Your task to perform on an android device: Go to Amazon Image 0: 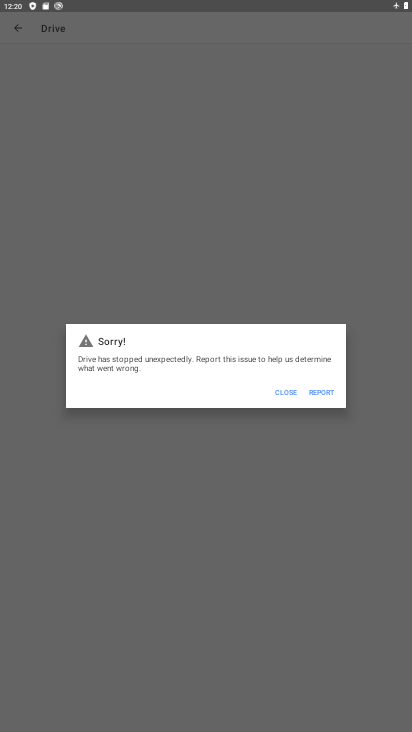
Step 0: press home button
Your task to perform on an android device: Go to Amazon Image 1: 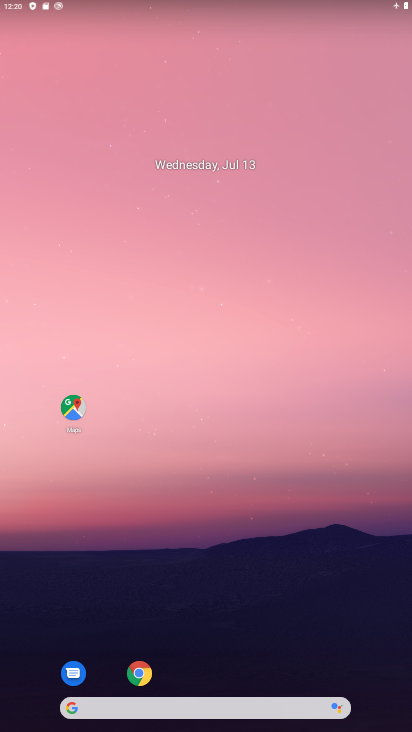
Step 1: click (149, 668)
Your task to perform on an android device: Go to Amazon Image 2: 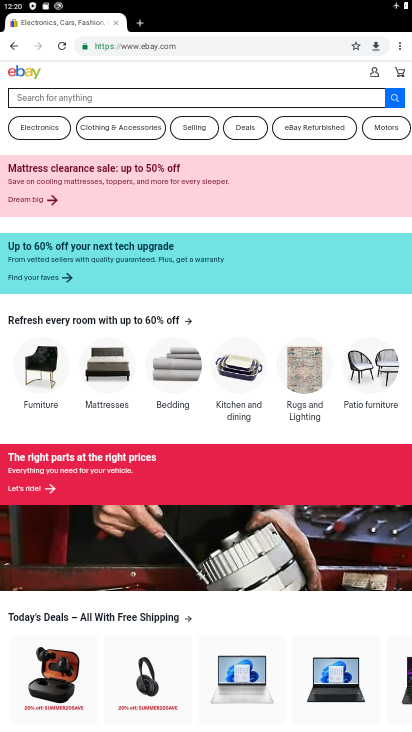
Step 2: click (141, 26)
Your task to perform on an android device: Go to Amazon Image 3: 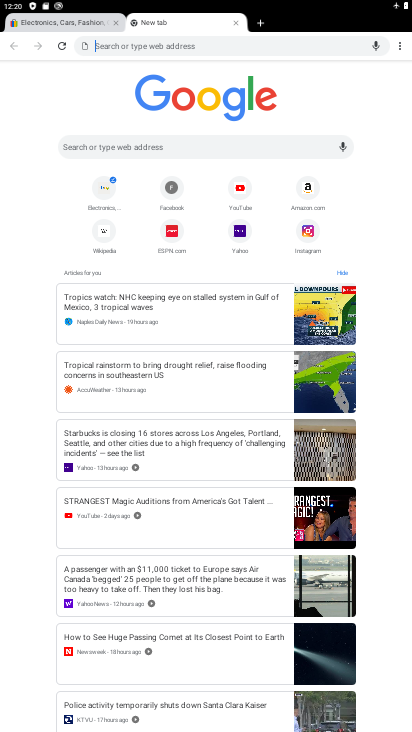
Step 3: click (310, 197)
Your task to perform on an android device: Go to Amazon Image 4: 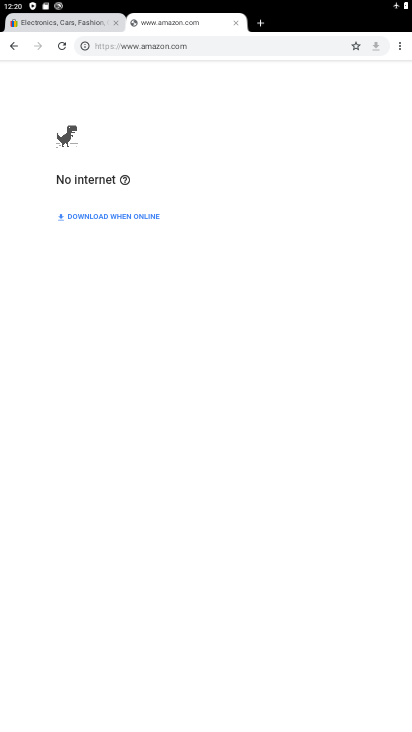
Step 4: task complete